Your task to perform on an android device: Open wifi settings Image 0: 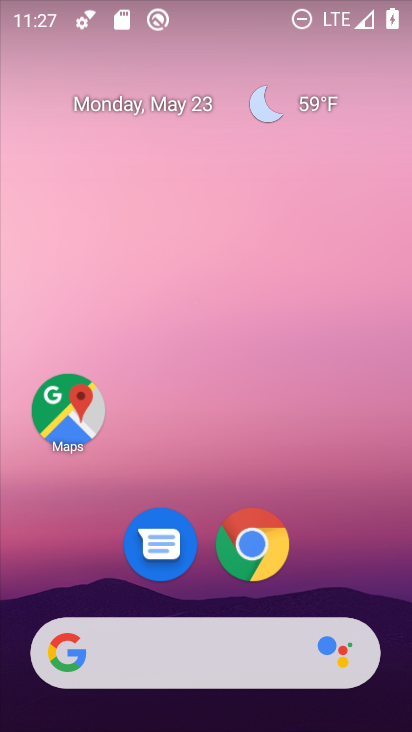
Step 0: drag from (380, 607) to (352, 135)
Your task to perform on an android device: Open wifi settings Image 1: 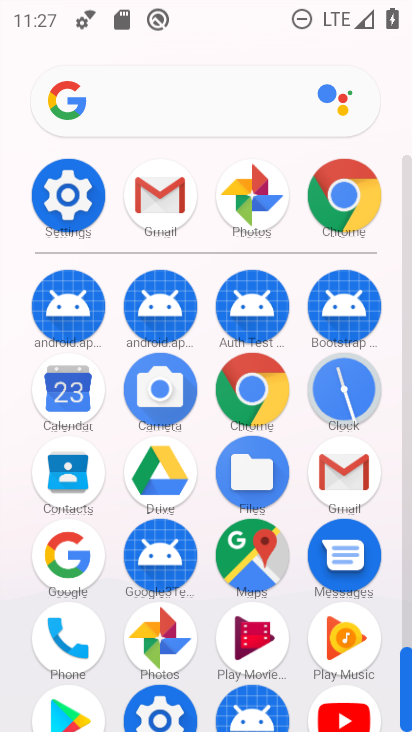
Step 1: drag from (405, 612) to (405, 575)
Your task to perform on an android device: Open wifi settings Image 2: 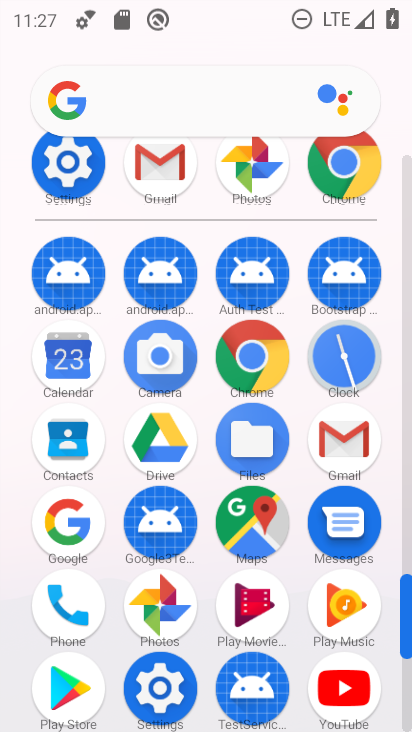
Step 2: click (162, 688)
Your task to perform on an android device: Open wifi settings Image 3: 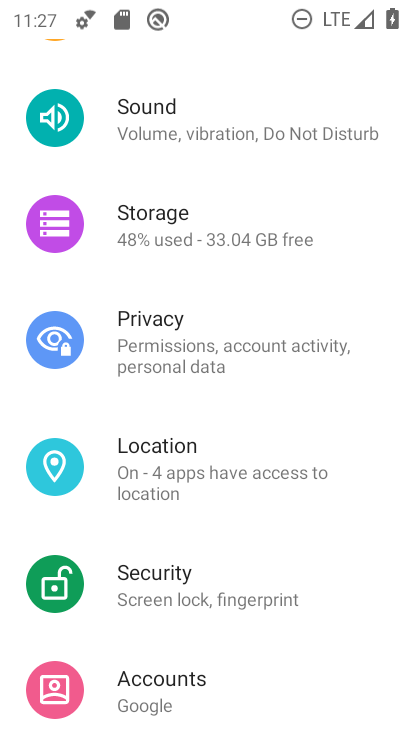
Step 3: drag from (385, 106) to (329, 384)
Your task to perform on an android device: Open wifi settings Image 4: 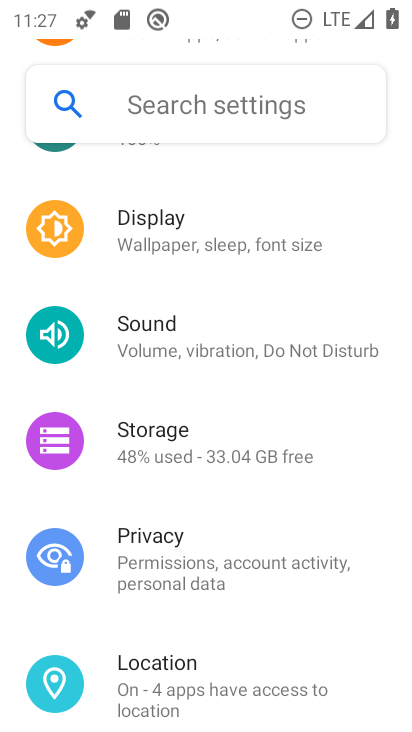
Step 4: drag from (345, 195) to (342, 529)
Your task to perform on an android device: Open wifi settings Image 5: 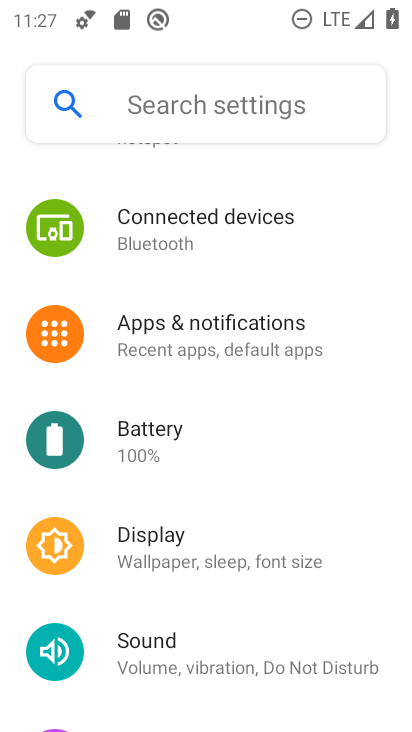
Step 5: drag from (348, 244) to (316, 535)
Your task to perform on an android device: Open wifi settings Image 6: 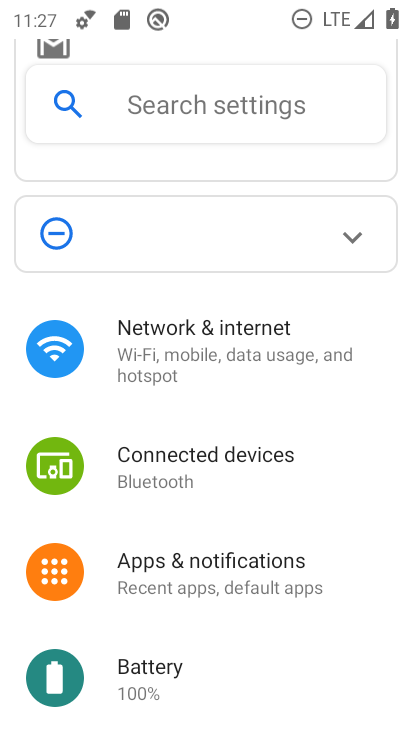
Step 6: click (176, 347)
Your task to perform on an android device: Open wifi settings Image 7: 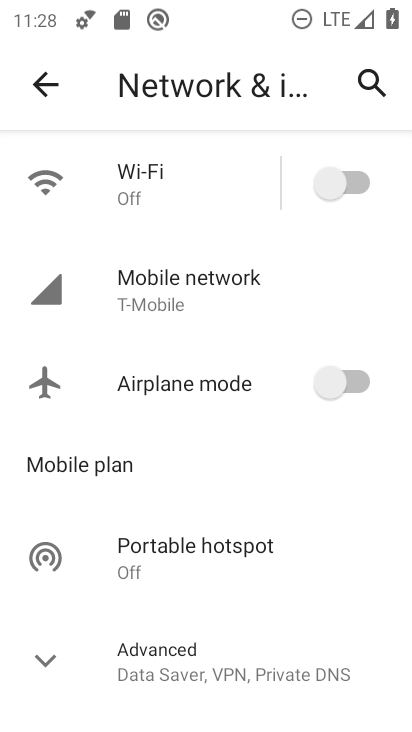
Step 7: click (60, 171)
Your task to perform on an android device: Open wifi settings Image 8: 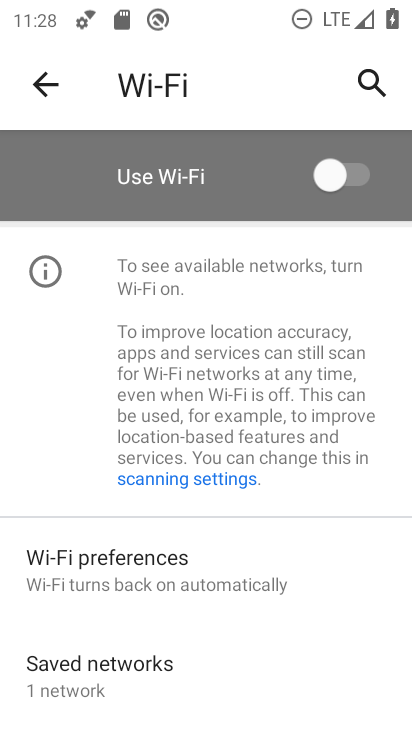
Step 8: task complete